Your task to perform on an android device: allow cookies in the chrome app Image 0: 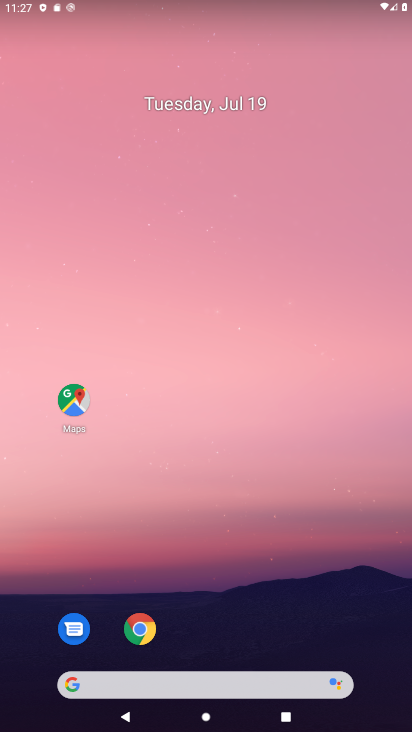
Step 0: drag from (350, 649) to (357, 133)
Your task to perform on an android device: allow cookies in the chrome app Image 1: 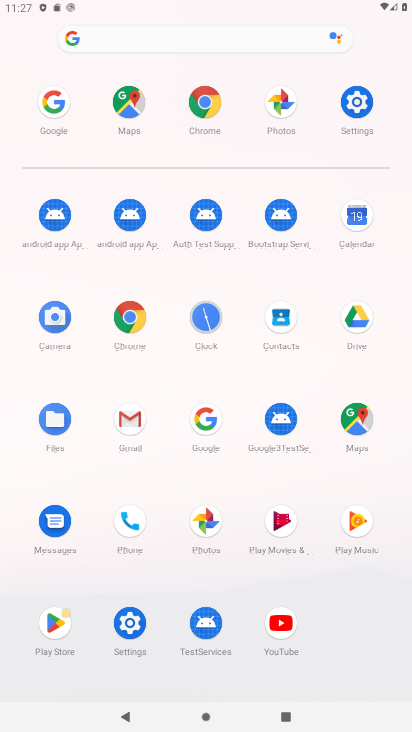
Step 1: click (138, 313)
Your task to perform on an android device: allow cookies in the chrome app Image 2: 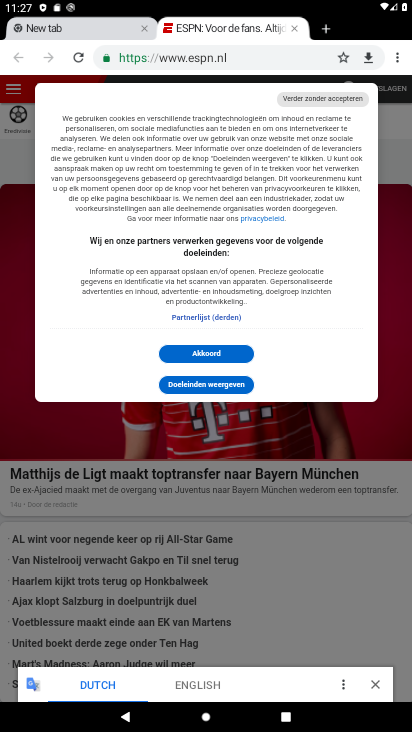
Step 2: click (393, 59)
Your task to perform on an android device: allow cookies in the chrome app Image 3: 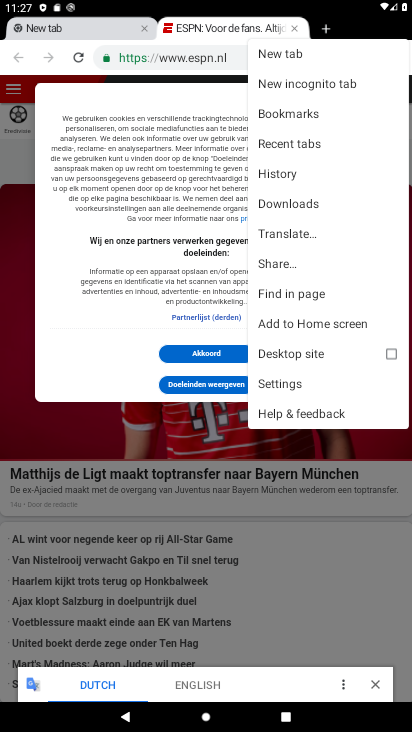
Step 3: click (342, 377)
Your task to perform on an android device: allow cookies in the chrome app Image 4: 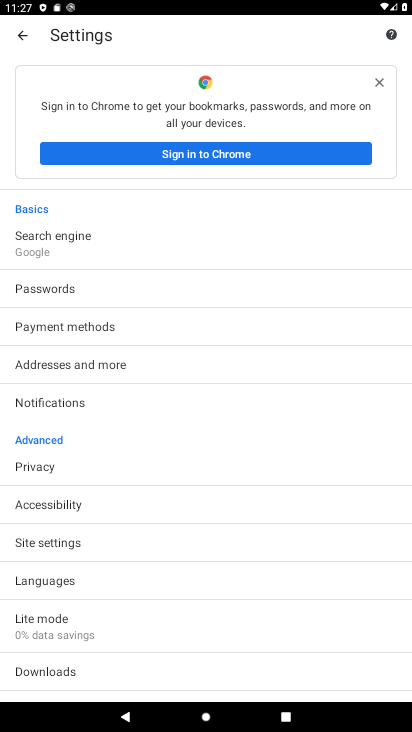
Step 4: drag from (315, 430) to (314, 304)
Your task to perform on an android device: allow cookies in the chrome app Image 5: 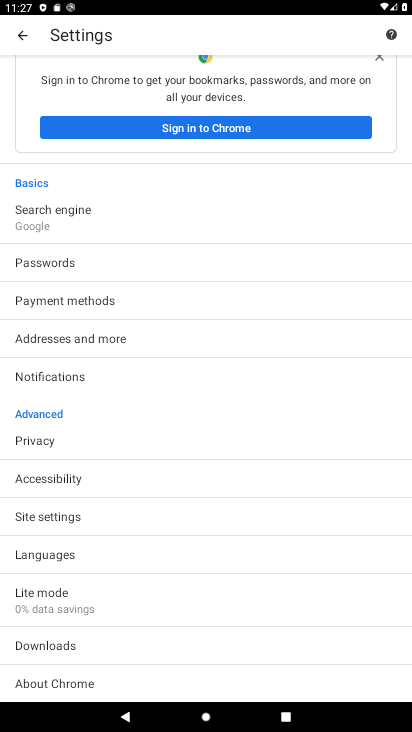
Step 5: click (316, 509)
Your task to perform on an android device: allow cookies in the chrome app Image 6: 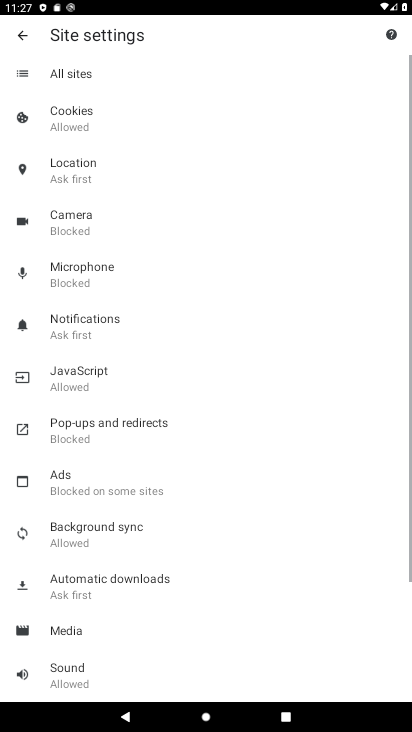
Step 6: drag from (316, 509) to (322, 341)
Your task to perform on an android device: allow cookies in the chrome app Image 7: 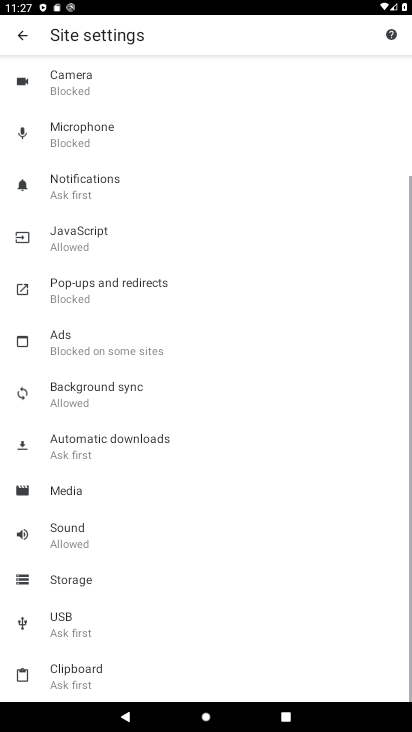
Step 7: drag from (322, 252) to (327, 357)
Your task to perform on an android device: allow cookies in the chrome app Image 8: 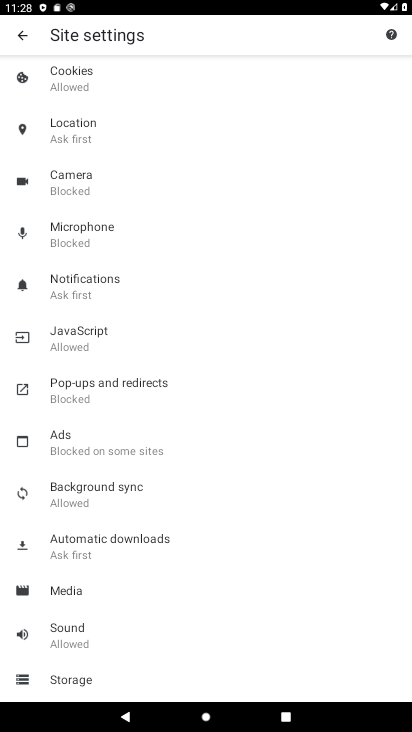
Step 8: drag from (182, 102) to (210, 250)
Your task to perform on an android device: allow cookies in the chrome app Image 9: 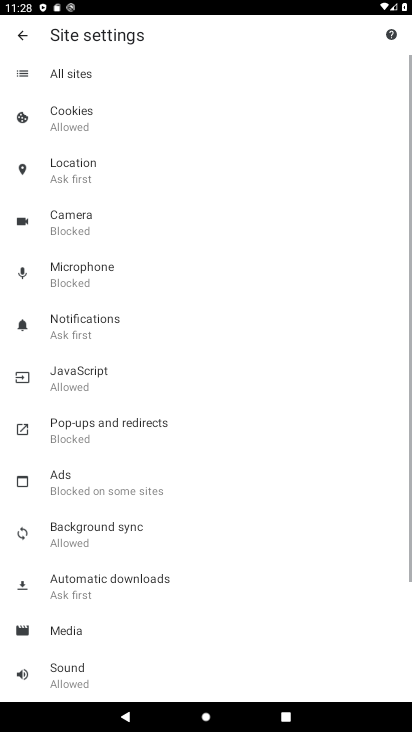
Step 9: click (175, 124)
Your task to perform on an android device: allow cookies in the chrome app Image 10: 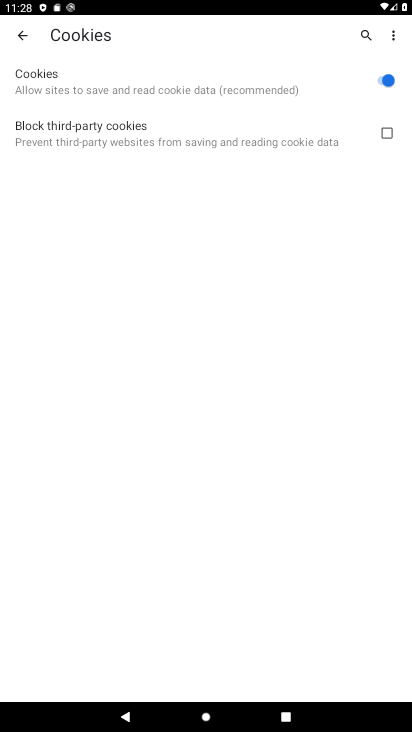
Step 10: task complete